Your task to perform on an android device: Open the calendar app, open the side menu, and click the "Day" option Image 0: 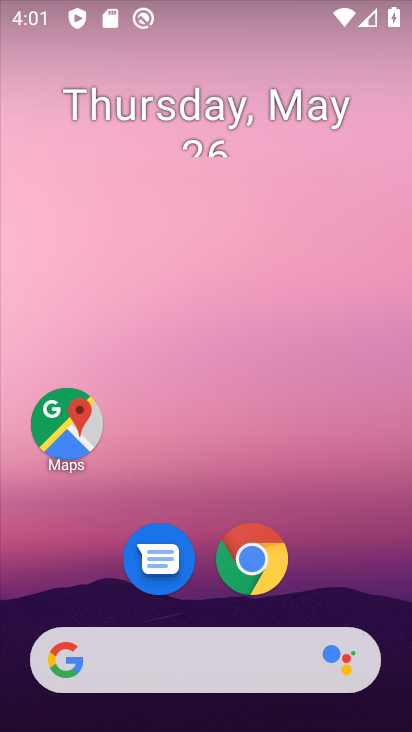
Step 0: drag from (334, 489) to (211, 42)
Your task to perform on an android device: Open the calendar app, open the side menu, and click the "Day" option Image 1: 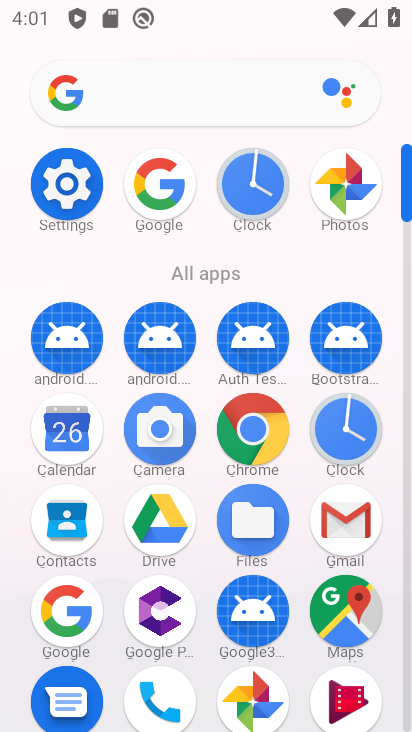
Step 1: click (60, 442)
Your task to perform on an android device: Open the calendar app, open the side menu, and click the "Day" option Image 2: 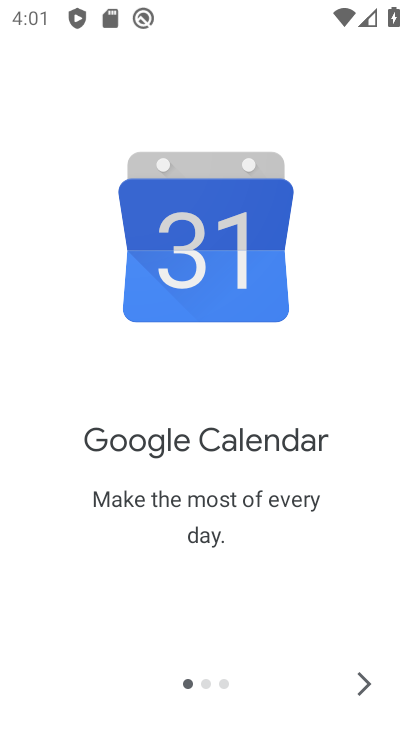
Step 2: click (361, 685)
Your task to perform on an android device: Open the calendar app, open the side menu, and click the "Day" option Image 3: 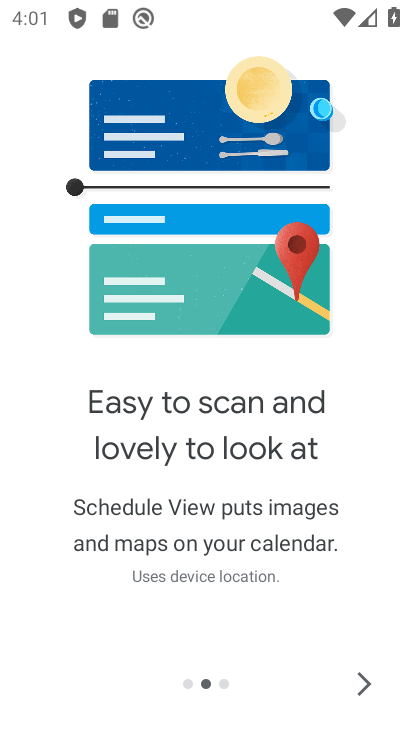
Step 3: click (362, 682)
Your task to perform on an android device: Open the calendar app, open the side menu, and click the "Day" option Image 4: 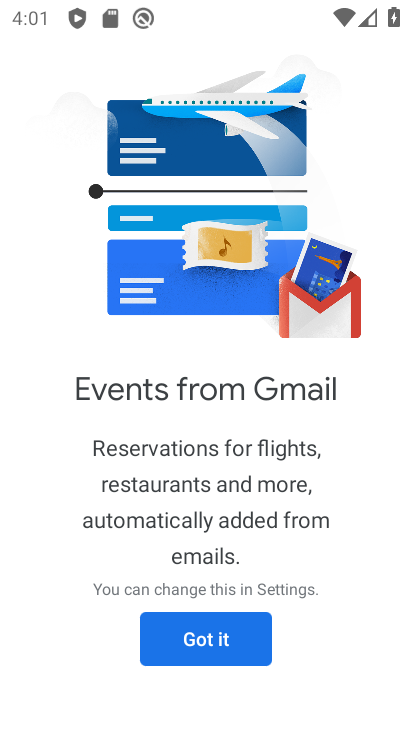
Step 4: click (212, 646)
Your task to perform on an android device: Open the calendar app, open the side menu, and click the "Day" option Image 5: 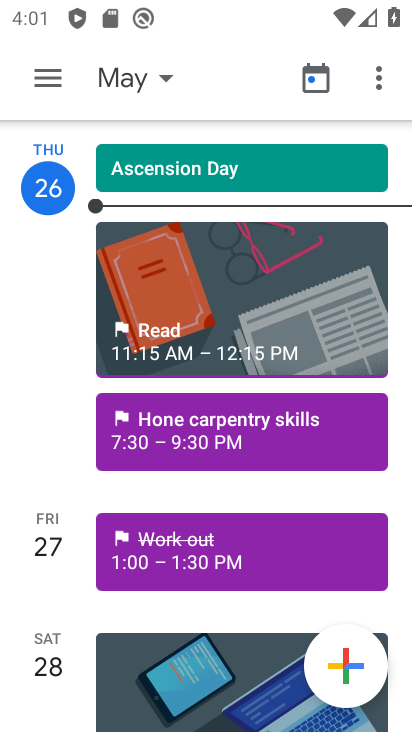
Step 5: click (51, 66)
Your task to perform on an android device: Open the calendar app, open the side menu, and click the "Day" option Image 6: 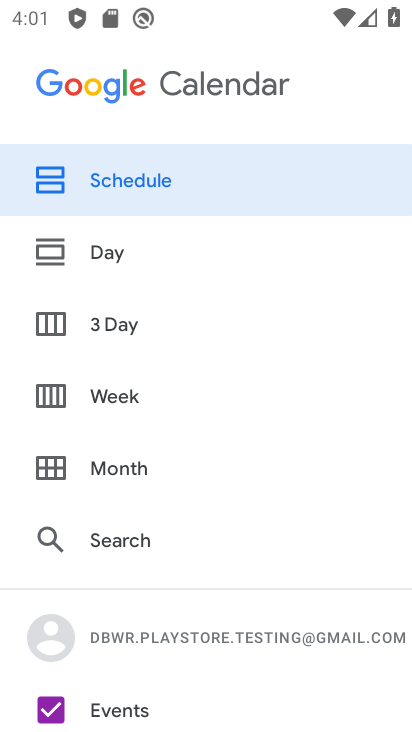
Step 6: click (145, 252)
Your task to perform on an android device: Open the calendar app, open the side menu, and click the "Day" option Image 7: 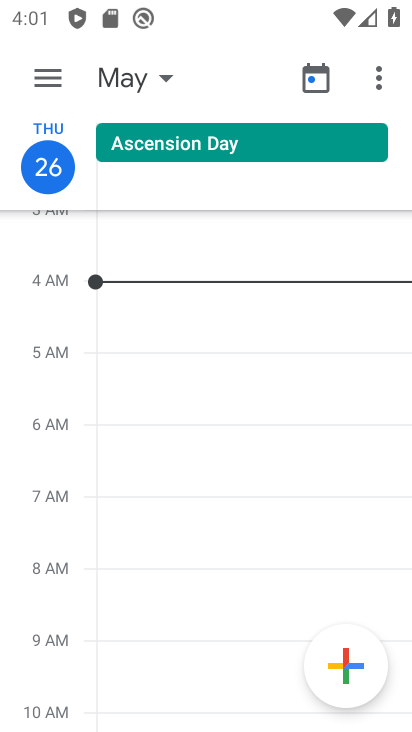
Step 7: task complete